Your task to perform on an android device: Go to Maps Image 0: 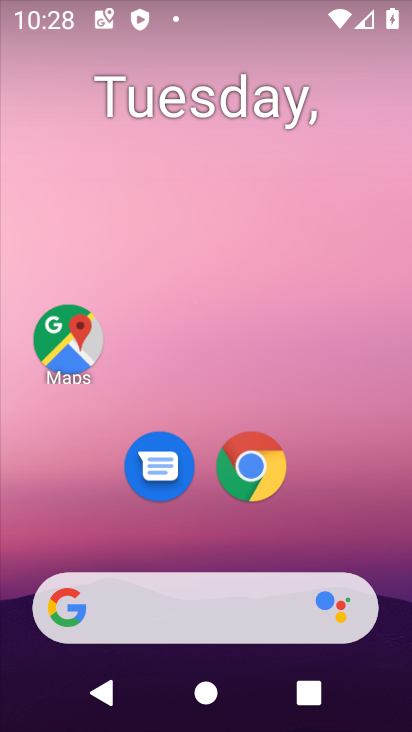
Step 0: click (53, 371)
Your task to perform on an android device: Go to Maps Image 1: 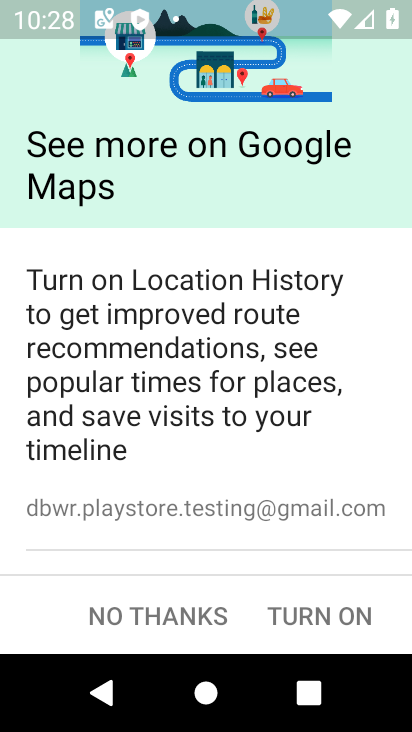
Step 1: click (201, 621)
Your task to perform on an android device: Go to Maps Image 2: 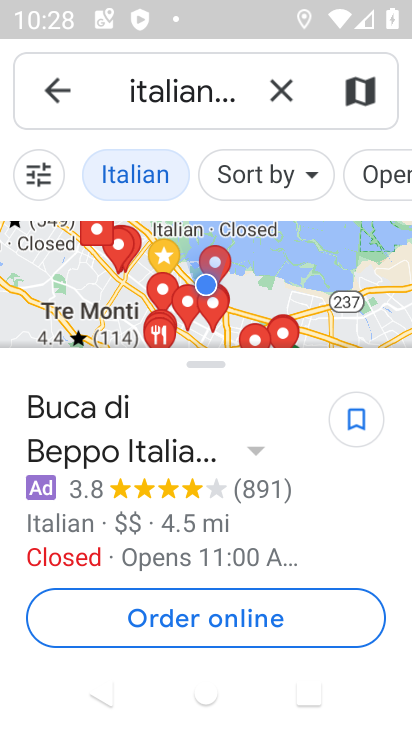
Step 2: task complete